Your task to perform on an android device: Open maps Image 0: 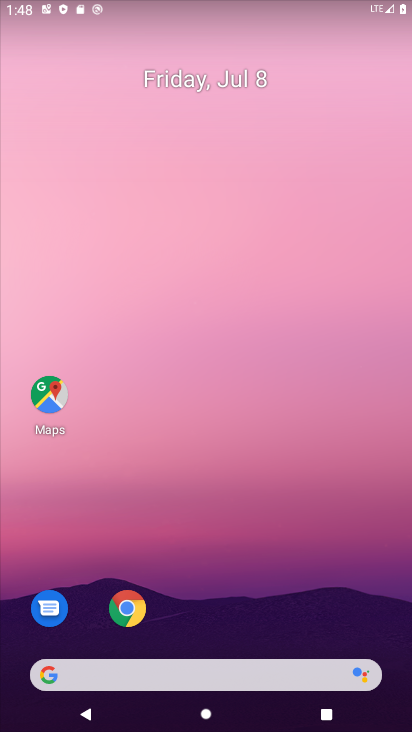
Step 0: click (48, 393)
Your task to perform on an android device: Open maps Image 1: 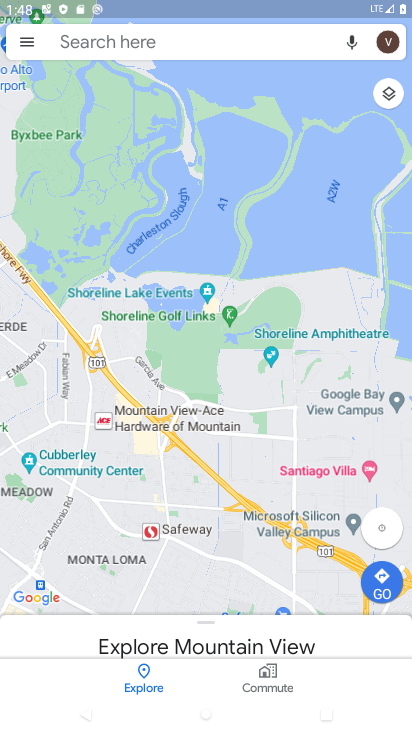
Step 1: task complete